Your task to perform on an android device: open app "WhatsApp Messenger" (install if not already installed) and go to login screen Image 0: 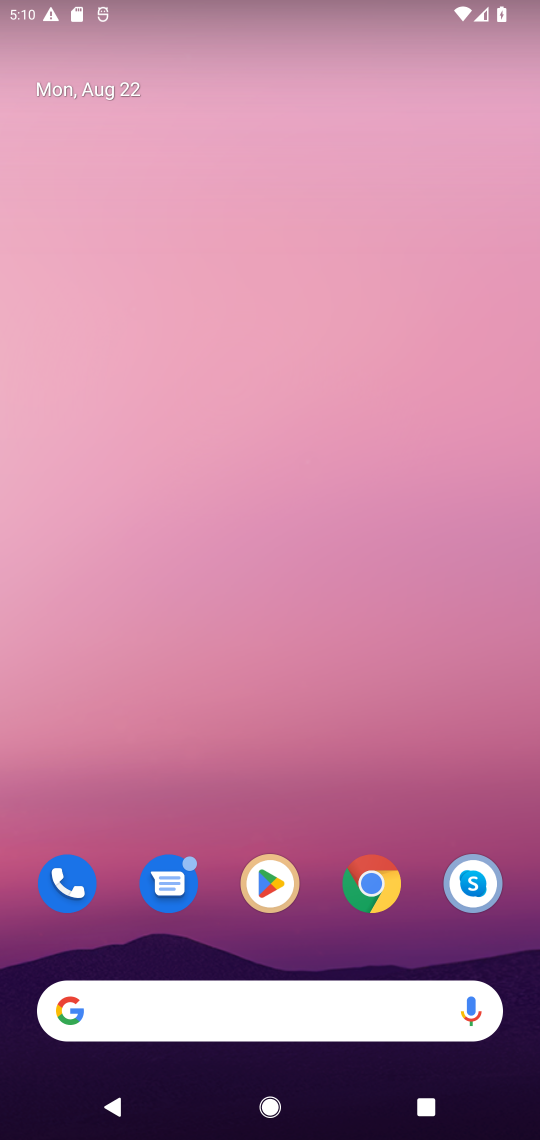
Step 0: drag from (247, 596) to (242, 249)
Your task to perform on an android device: open app "WhatsApp Messenger" (install if not already installed) and go to login screen Image 1: 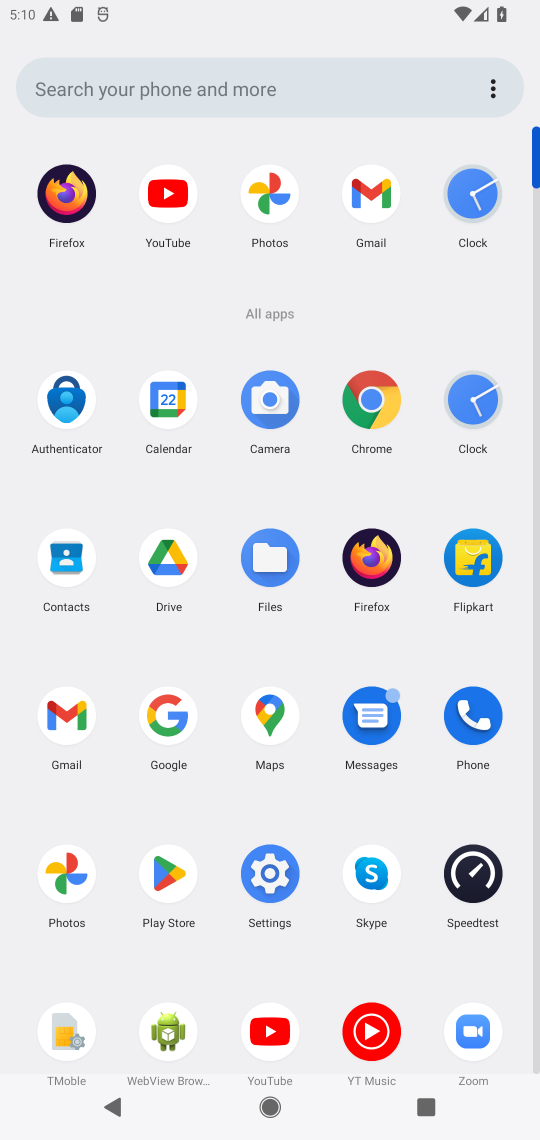
Step 1: click (165, 874)
Your task to perform on an android device: open app "WhatsApp Messenger" (install if not already installed) and go to login screen Image 2: 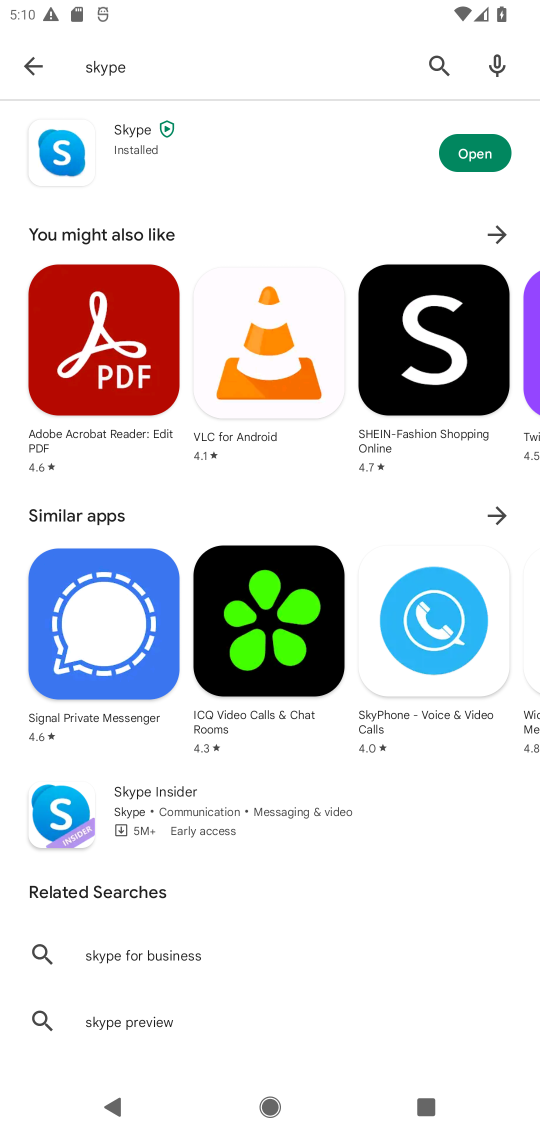
Step 2: click (430, 62)
Your task to perform on an android device: open app "WhatsApp Messenger" (install if not already installed) and go to login screen Image 3: 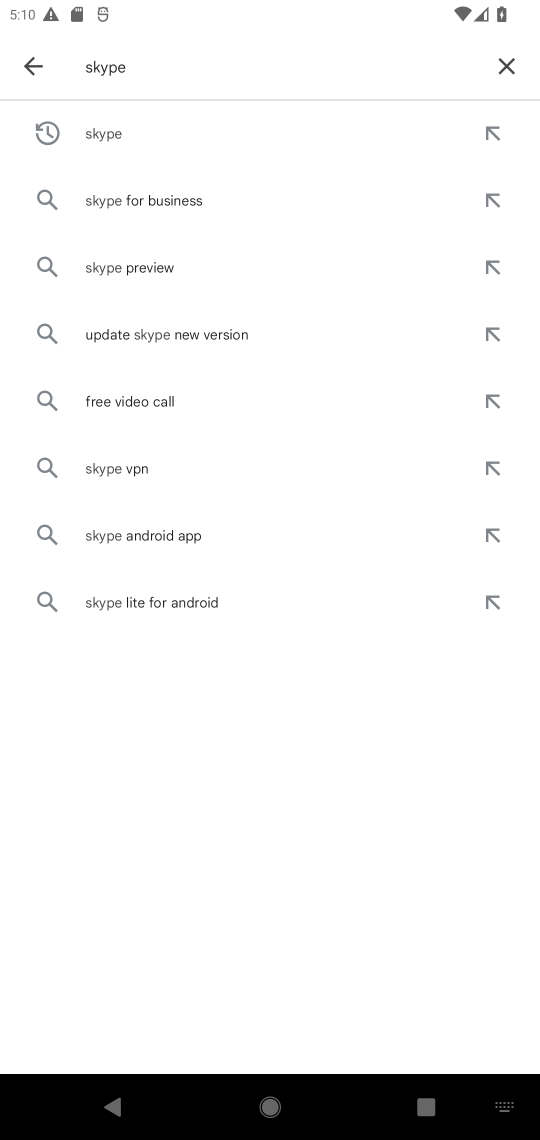
Step 3: click (508, 68)
Your task to perform on an android device: open app "WhatsApp Messenger" (install if not already installed) and go to login screen Image 4: 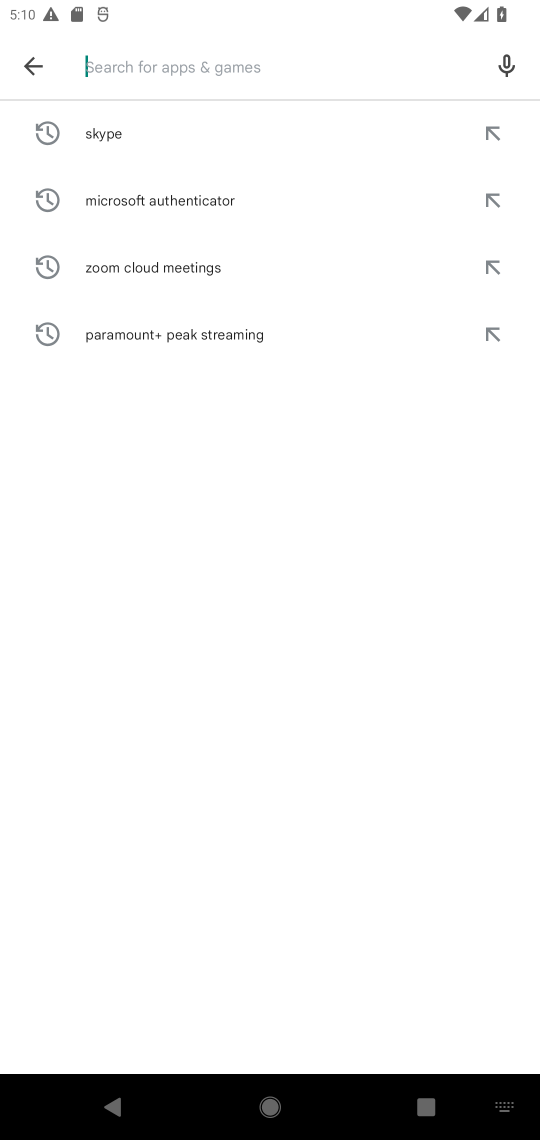
Step 4: type "WhatsApp Messenger"
Your task to perform on an android device: open app "WhatsApp Messenger" (install if not already installed) and go to login screen Image 5: 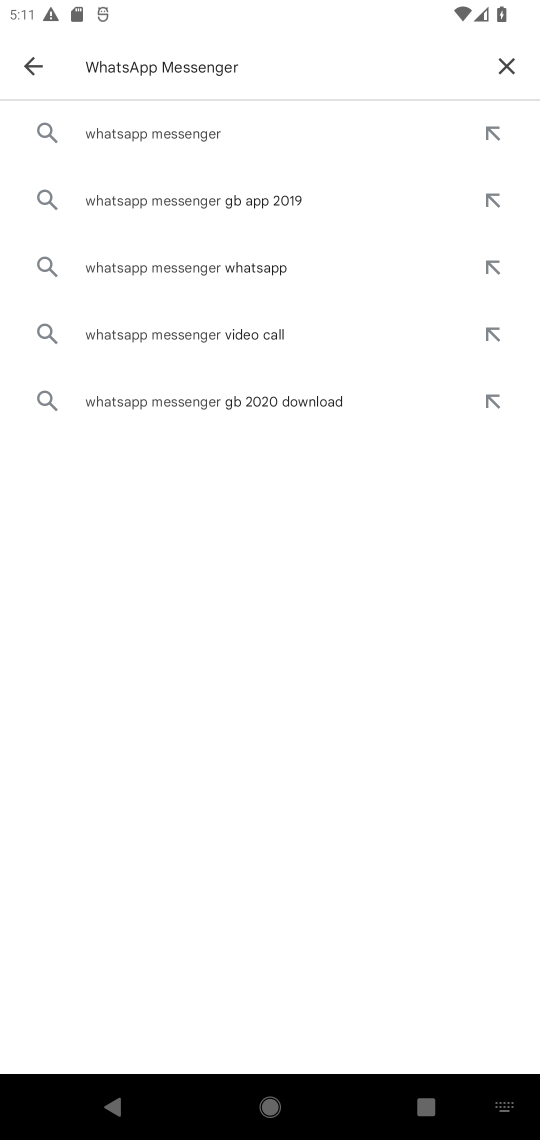
Step 5: click (195, 125)
Your task to perform on an android device: open app "WhatsApp Messenger" (install if not already installed) and go to login screen Image 6: 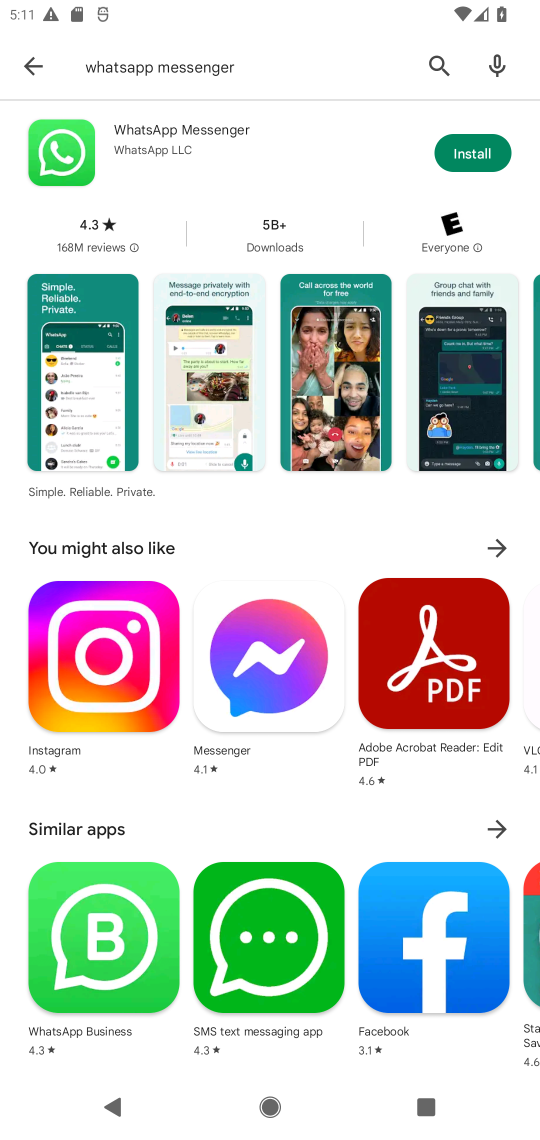
Step 6: click (475, 145)
Your task to perform on an android device: open app "WhatsApp Messenger" (install if not already installed) and go to login screen Image 7: 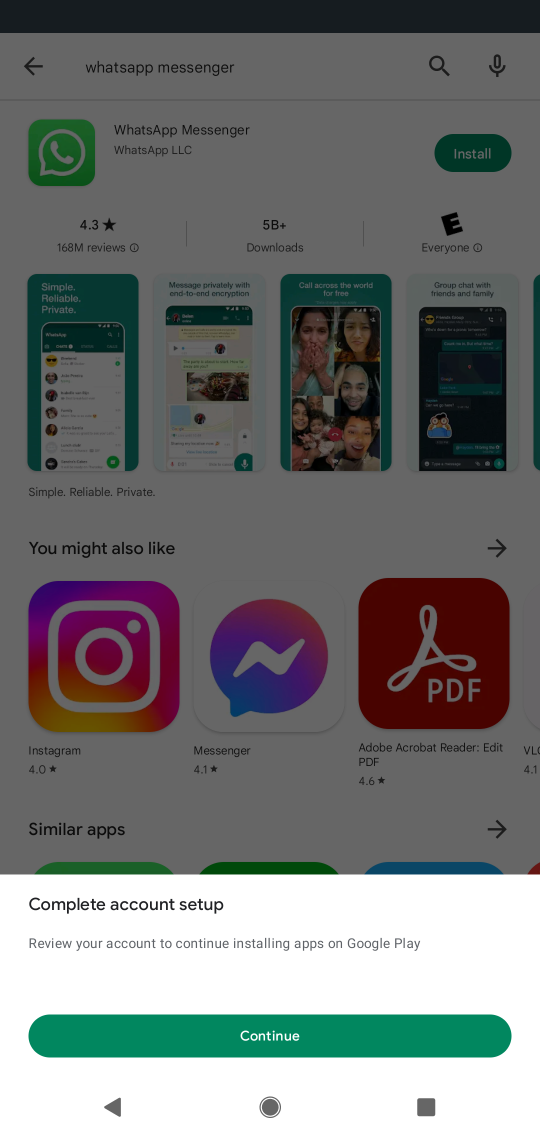
Step 7: click (273, 1042)
Your task to perform on an android device: open app "WhatsApp Messenger" (install if not already installed) and go to login screen Image 8: 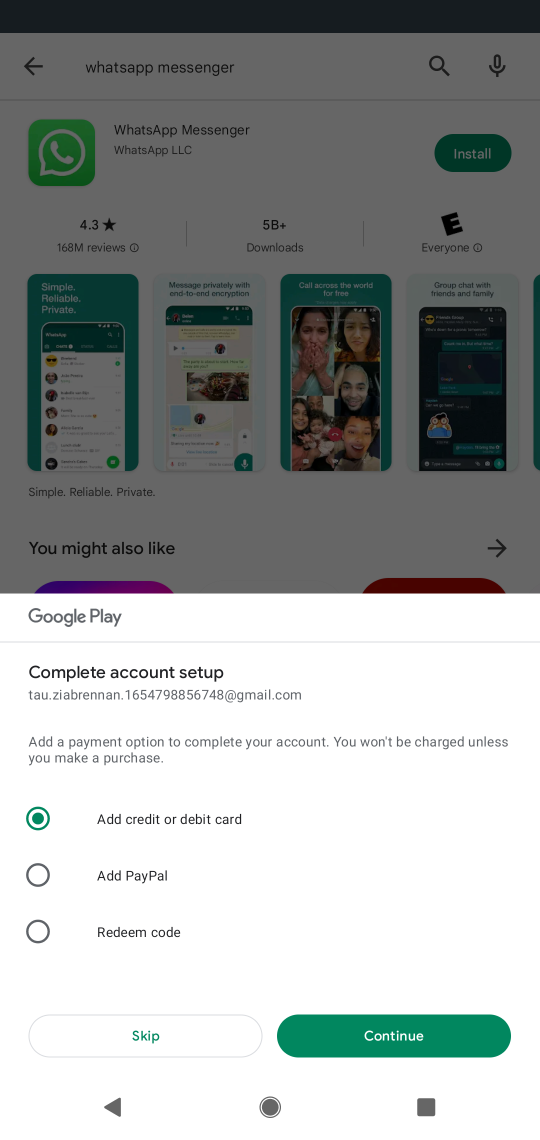
Step 8: click (166, 1027)
Your task to perform on an android device: open app "WhatsApp Messenger" (install if not already installed) and go to login screen Image 9: 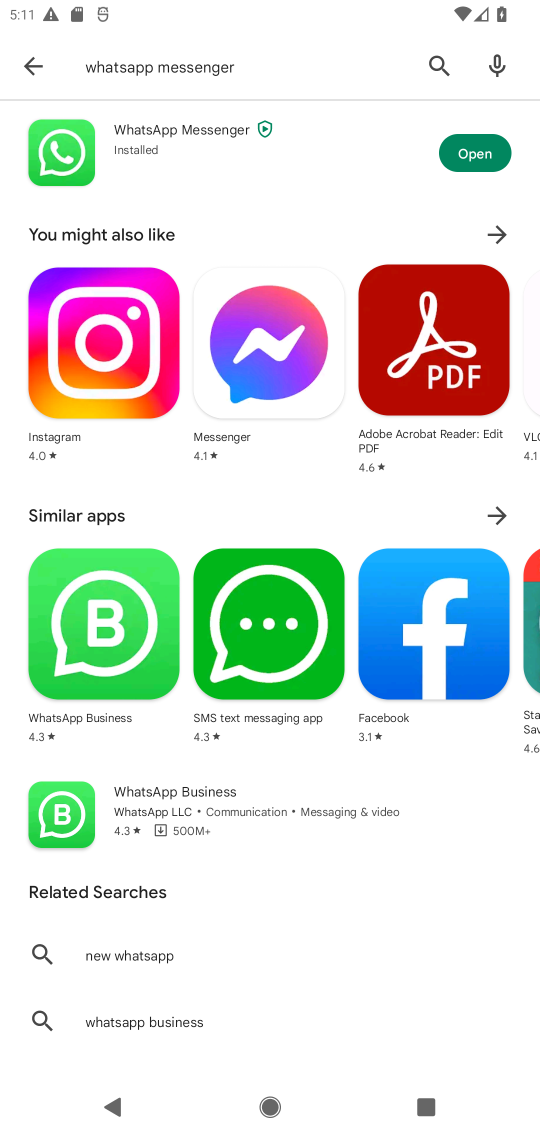
Step 9: click (472, 145)
Your task to perform on an android device: open app "WhatsApp Messenger" (install if not already installed) and go to login screen Image 10: 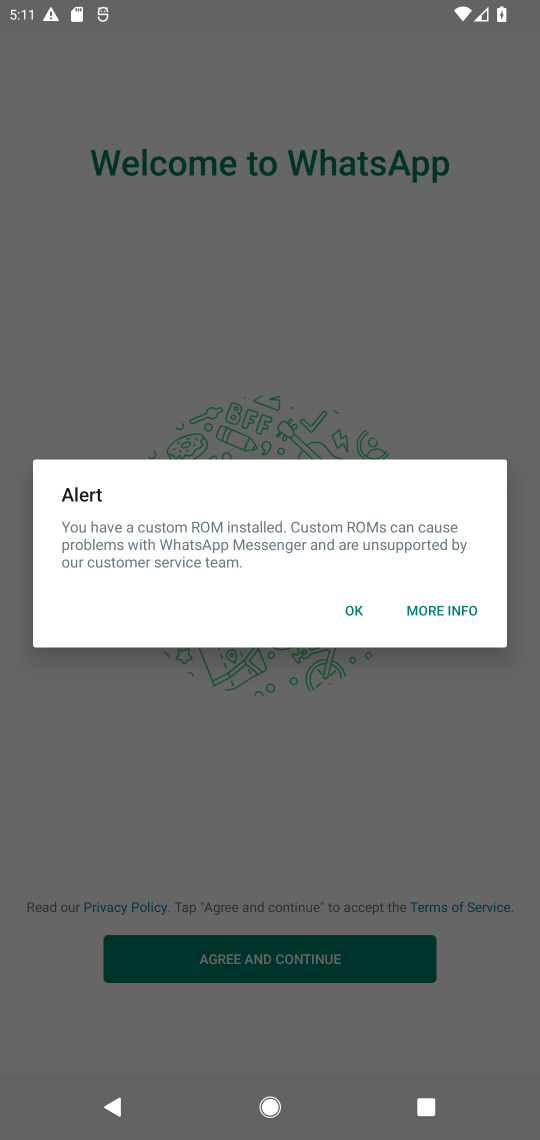
Step 10: task complete